Your task to perform on an android device: delete a single message in the gmail app Image 0: 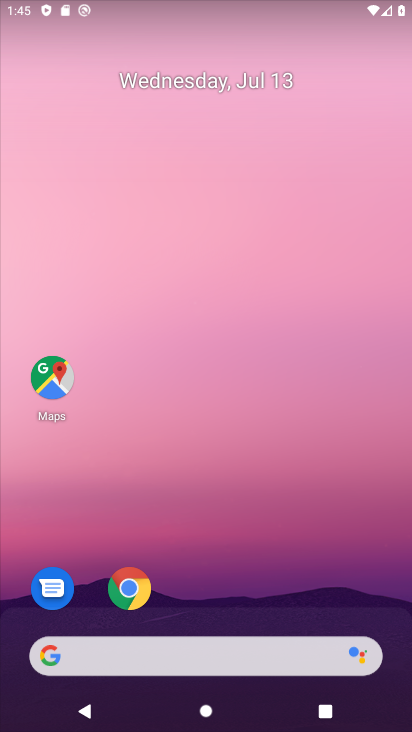
Step 0: drag from (196, 627) to (287, 21)
Your task to perform on an android device: delete a single message in the gmail app Image 1: 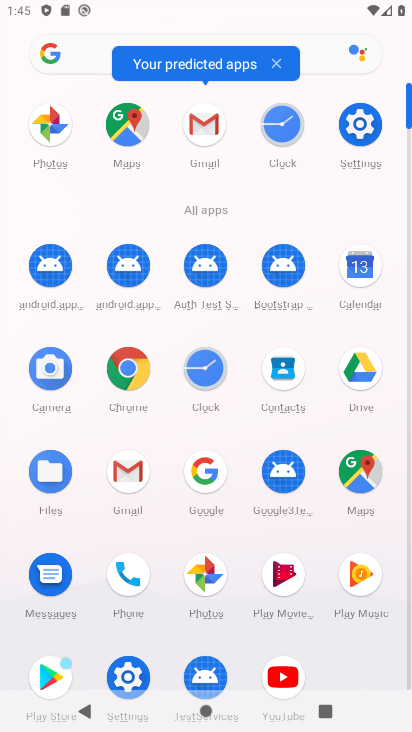
Step 1: click (133, 487)
Your task to perform on an android device: delete a single message in the gmail app Image 2: 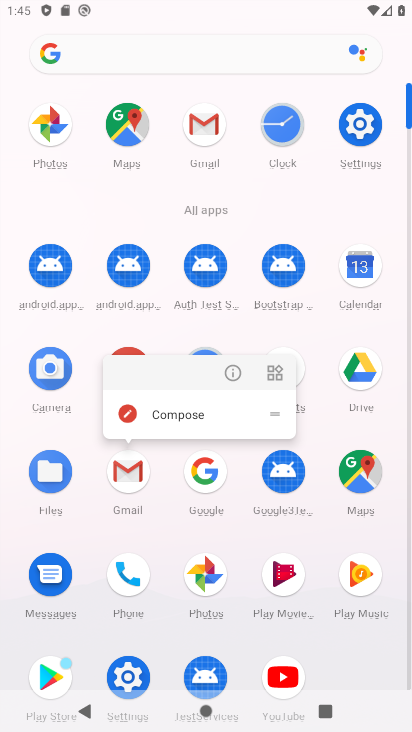
Step 2: click (132, 481)
Your task to perform on an android device: delete a single message in the gmail app Image 3: 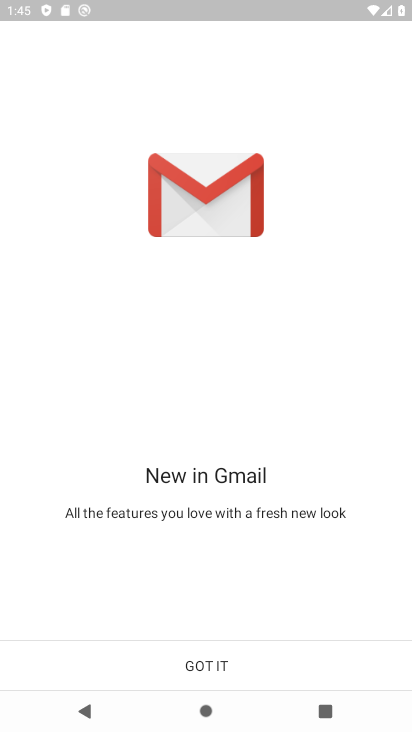
Step 3: click (209, 652)
Your task to perform on an android device: delete a single message in the gmail app Image 4: 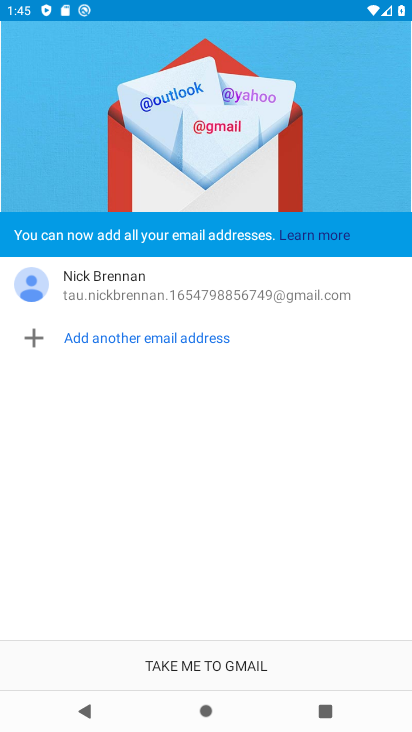
Step 4: click (221, 664)
Your task to perform on an android device: delete a single message in the gmail app Image 5: 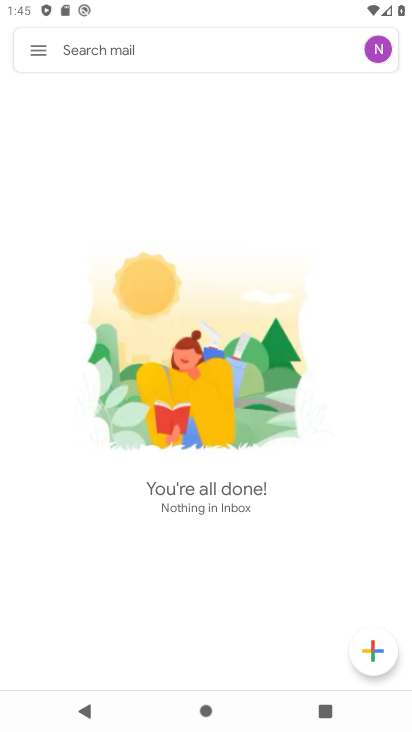
Step 5: task complete